Your task to perform on an android device: Go to Yahoo.com Image 0: 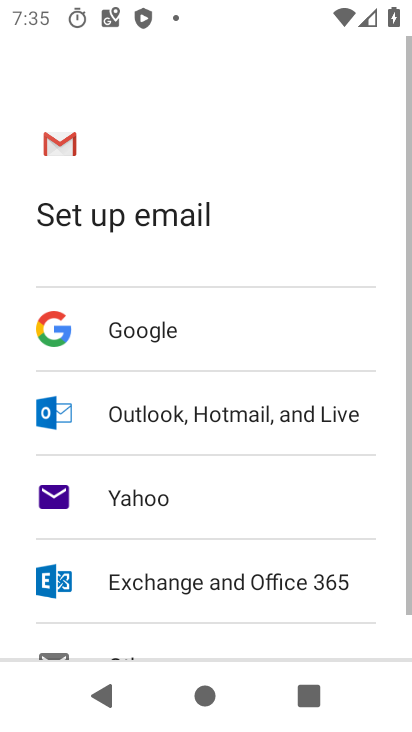
Step 0: press home button
Your task to perform on an android device: Go to Yahoo.com Image 1: 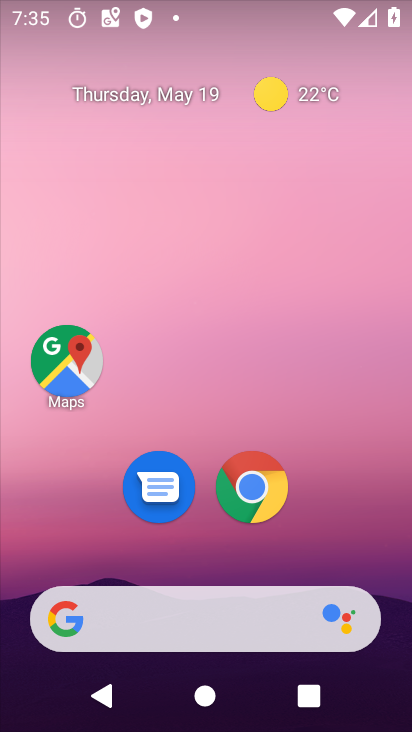
Step 1: click (264, 485)
Your task to perform on an android device: Go to Yahoo.com Image 2: 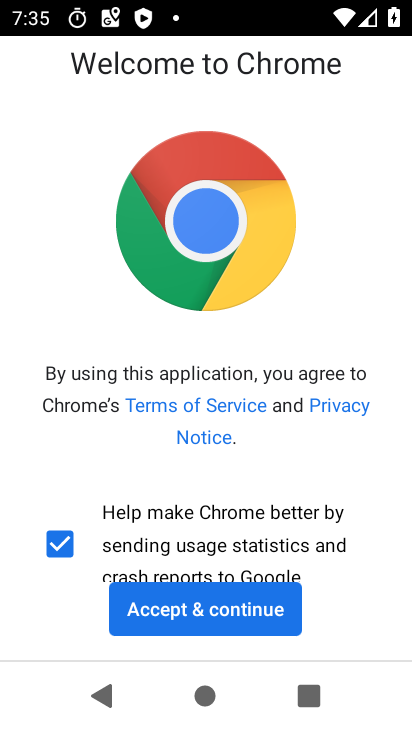
Step 2: click (170, 610)
Your task to perform on an android device: Go to Yahoo.com Image 3: 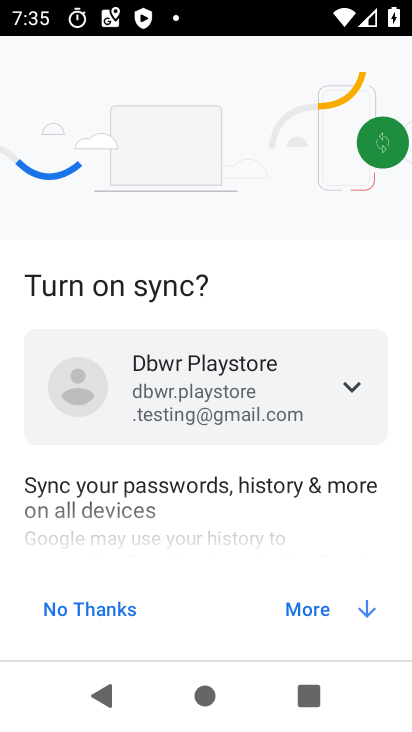
Step 3: click (304, 612)
Your task to perform on an android device: Go to Yahoo.com Image 4: 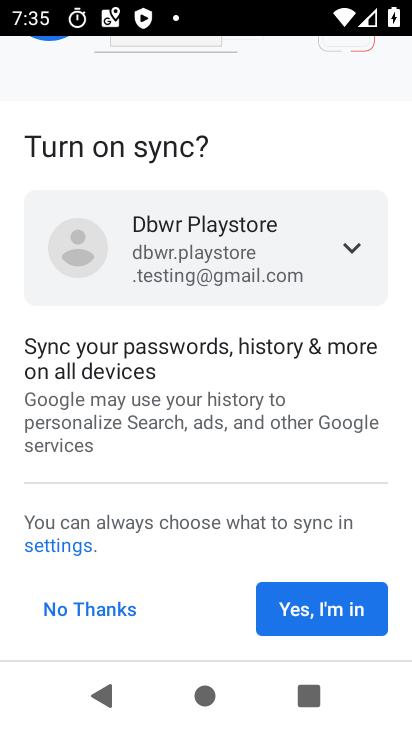
Step 4: click (305, 612)
Your task to perform on an android device: Go to Yahoo.com Image 5: 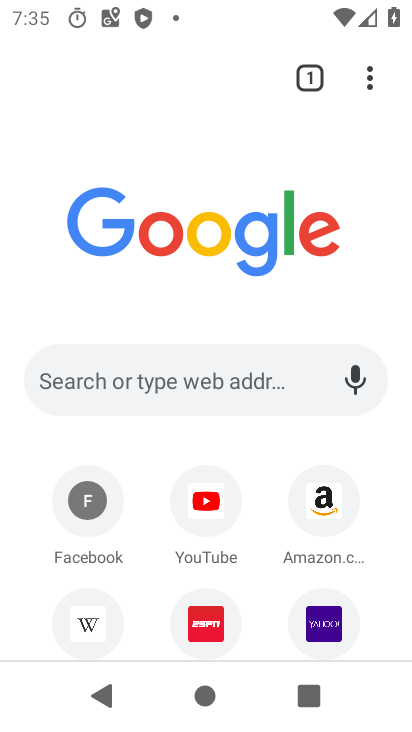
Step 5: click (316, 620)
Your task to perform on an android device: Go to Yahoo.com Image 6: 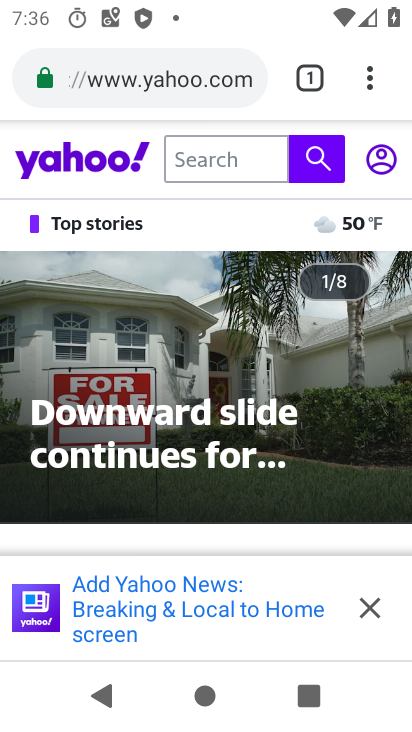
Step 6: task complete